Your task to perform on an android device: Open Chrome and go to settings Image 0: 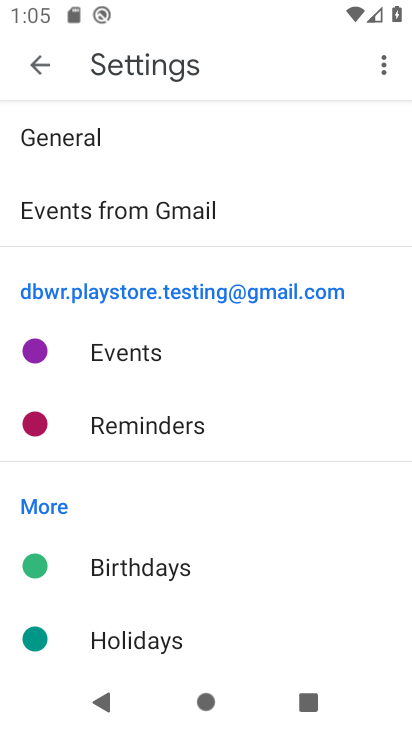
Step 0: press home button
Your task to perform on an android device: Open Chrome and go to settings Image 1: 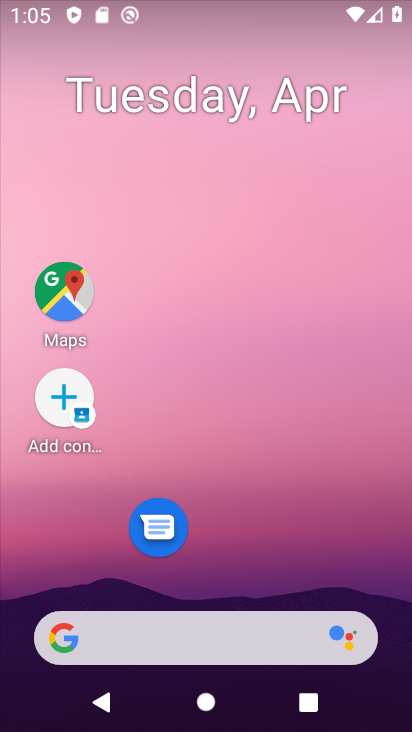
Step 1: drag from (266, 555) to (281, 43)
Your task to perform on an android device: Open Chrome and go to settings Image 2: 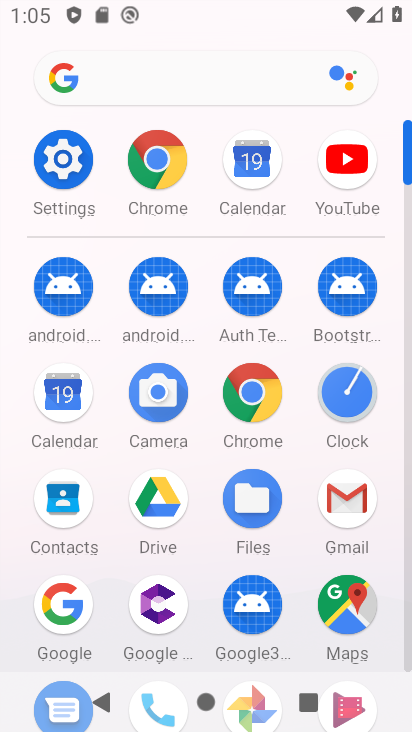
Step 2: click (157, 164)
Your task to perform on an android device: Open Chrome and go to settings Image 3: 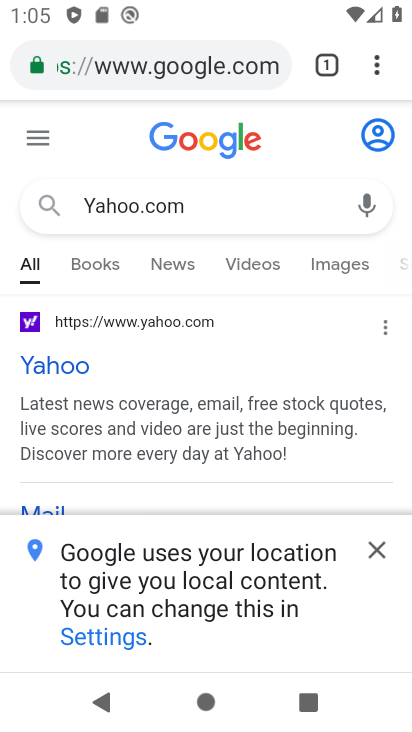
Step 3: click (381, 59)
Your task to perform on an android device: Open Chrome and go to settings Image 4: 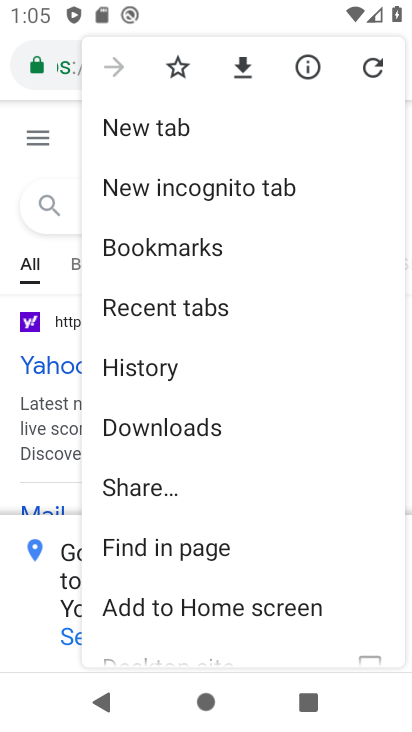
Step 4: drag from (259, 460) to (303, 347)
Your task to perform on an android device: Open Chrome and go to settings Image 5: 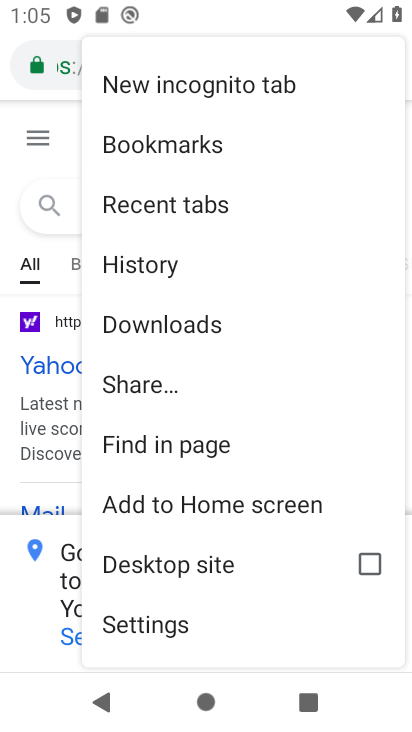
Step 5: drag from (272, 451) to (299, 354)
Your task to perform on an android device: Open Chrome and go to settings Image 6: 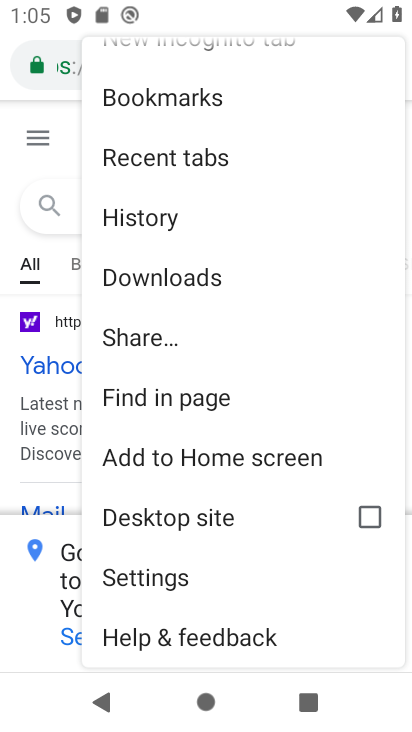
Step 6: click (158, 583)
Your task to perform on an android device: Open Chrome and go to settings Image 7: 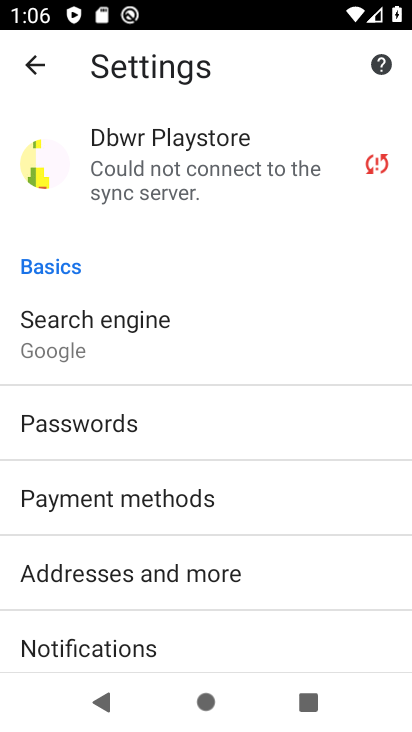
Step 7: task complete